Your task to perform on an android device: check battery use Image 0: 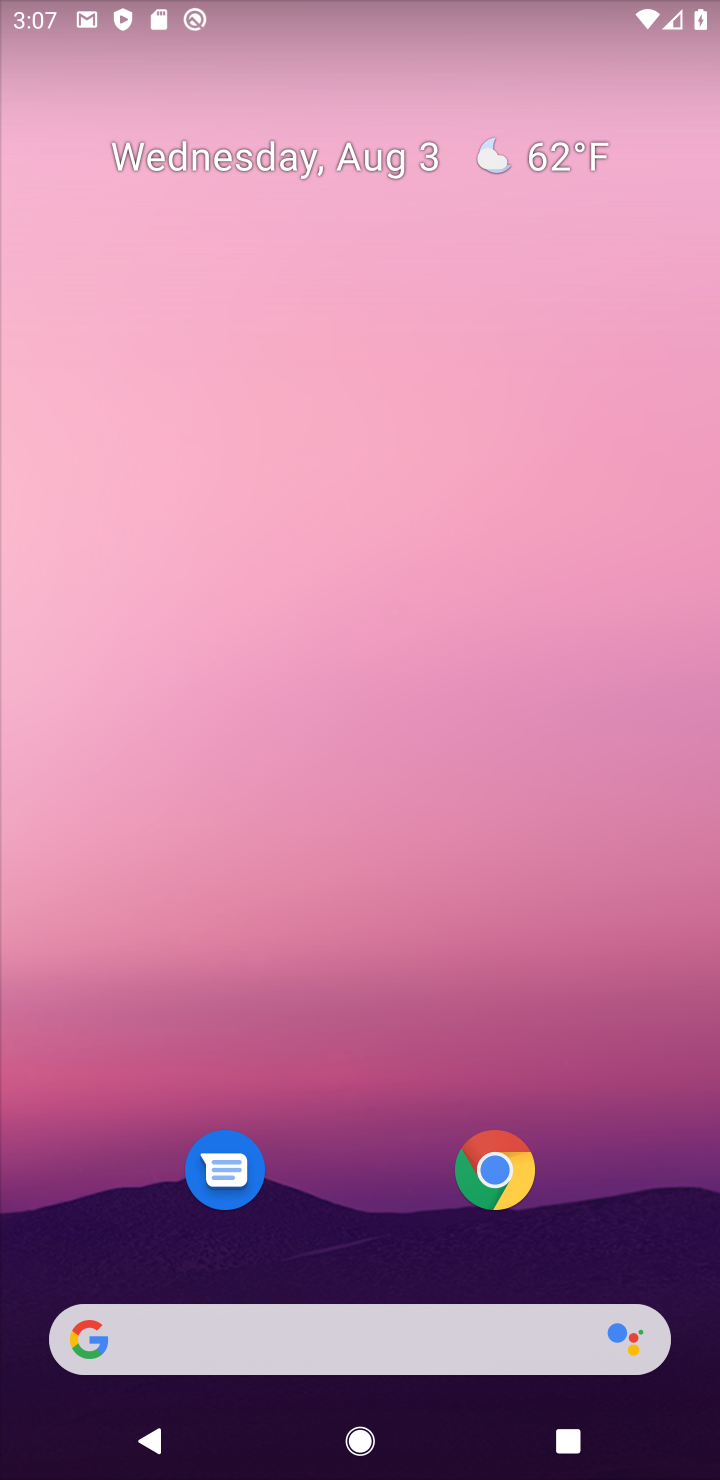
Step 0: drag from (309, 1041) to (270, 66)
Your task to perform on an android device: check battery use Image 1: 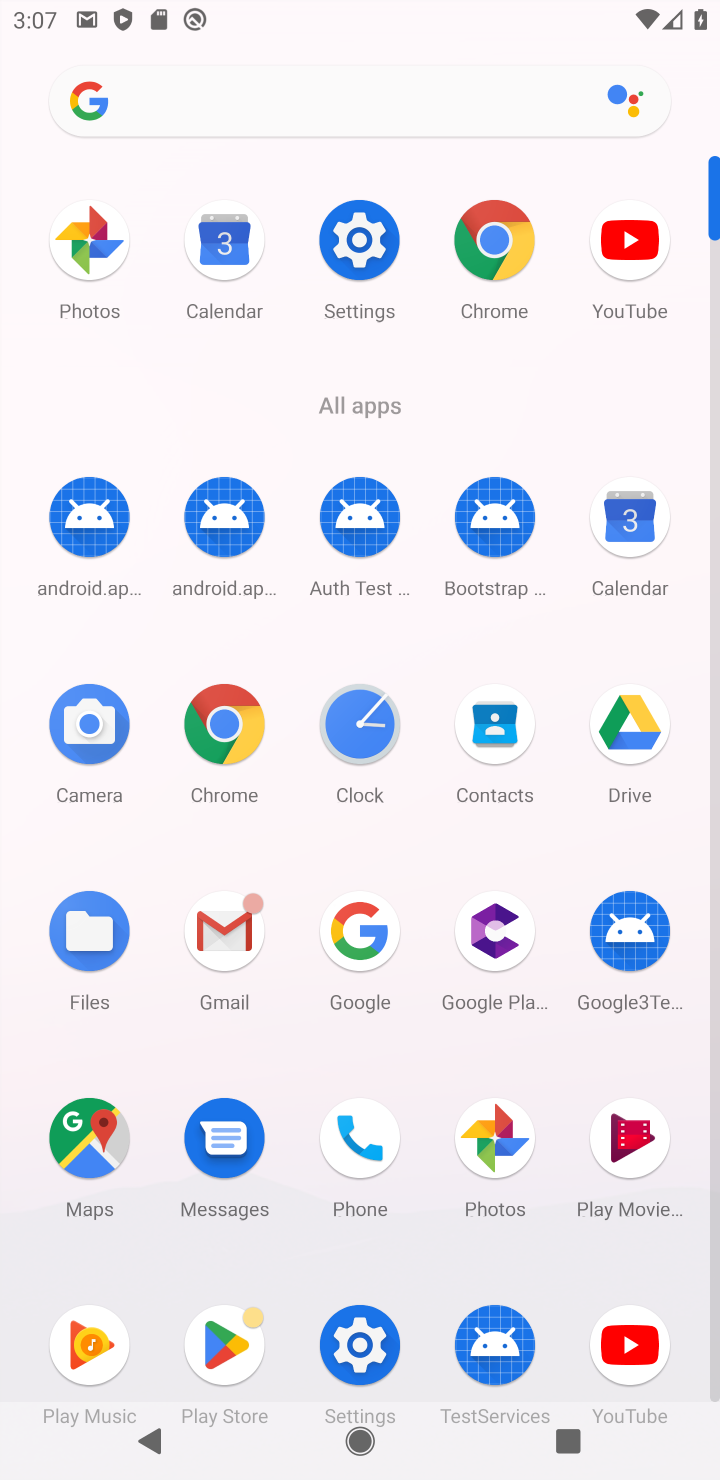
Step 1: click (361, 261)
Your task to perform on an android device: check battery use Image 2: 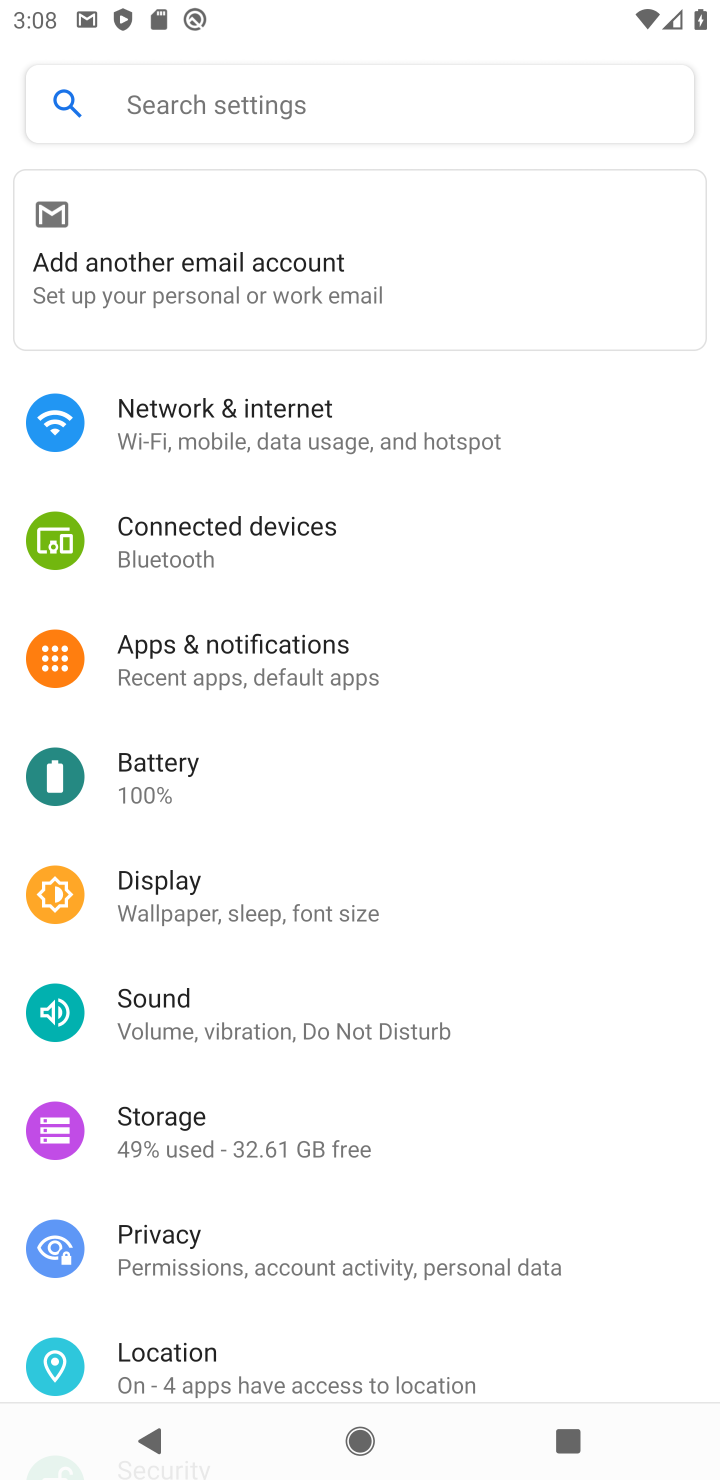
Step 2: click (165, 761)
Your task to perform on an android device: check battery use Image 3: 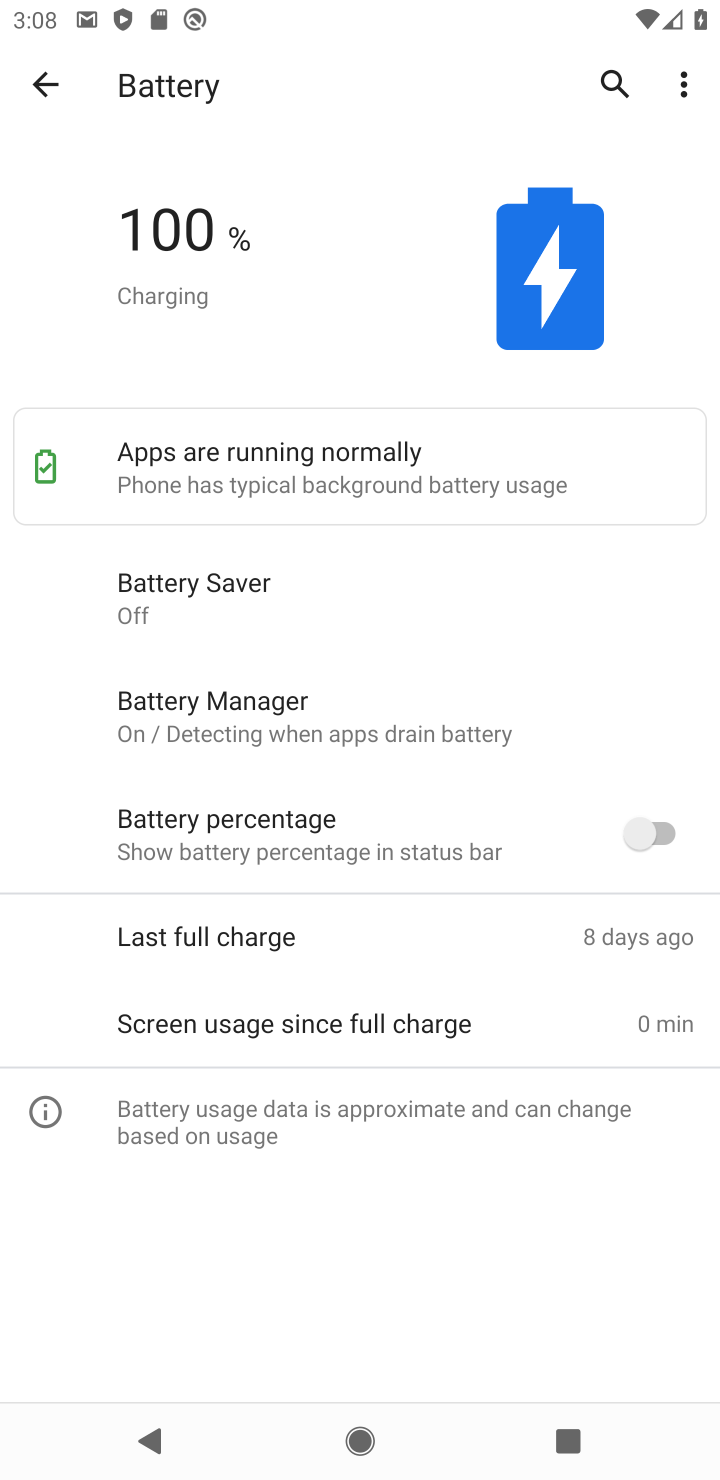
Step 3: task complete